Your task to perform on an android device: check storage Image 0: 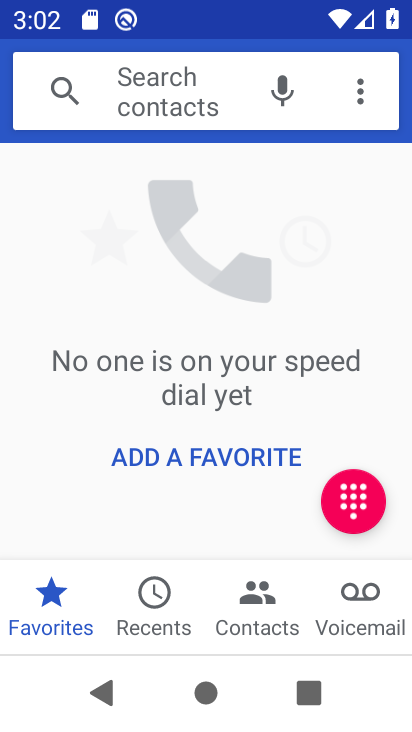
Step 0: press home button
Your task to perform on an android device: check storage Image 1: 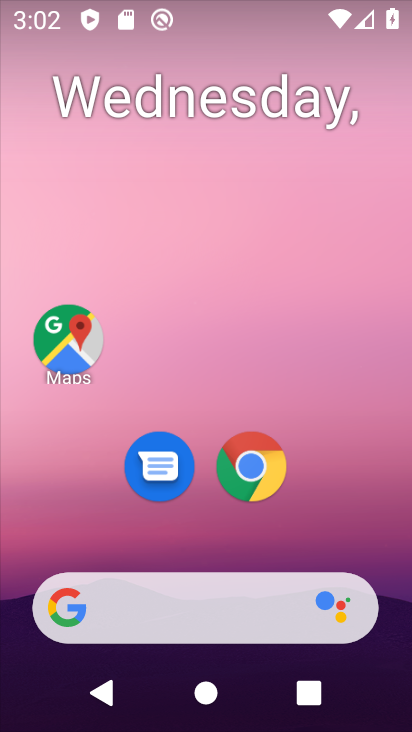
Step 1: drag from (327, 511) to (127, 160)
Your task to perform on an android device: check storage Image 2: 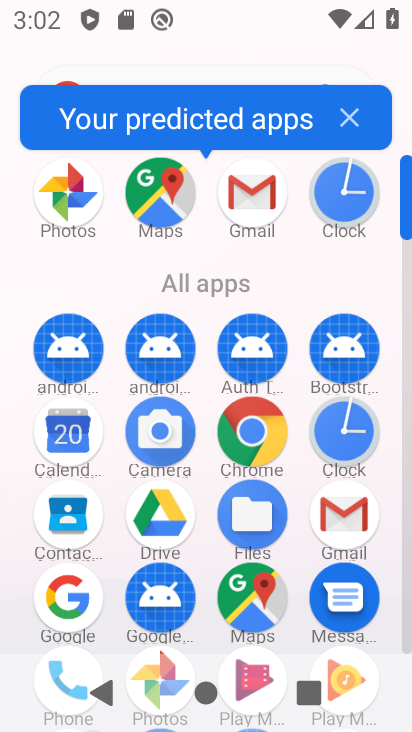
Step 2: drag from (203, 635) to (204, 162)
Your task to perform on an android device: check storage Image 3: 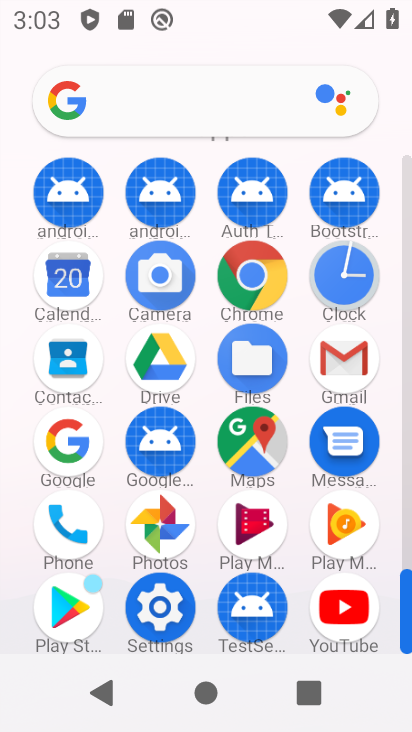
Step 3: click (142, 605)
Your task to perform on an android device: check storage Image 4: 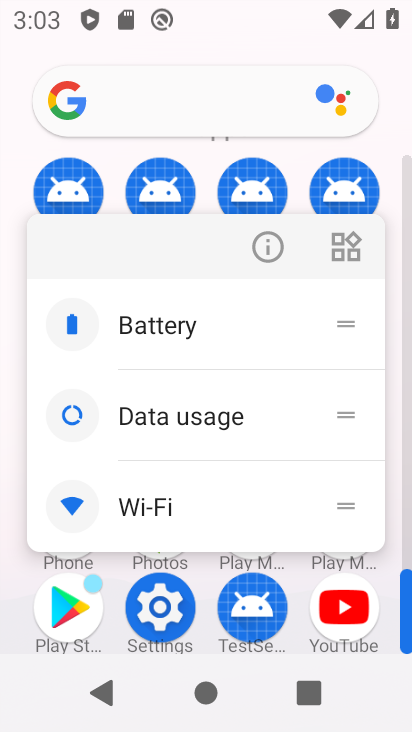
Step 4: click (158, 619)
Your task to perform on an android device: check storage Image 5: 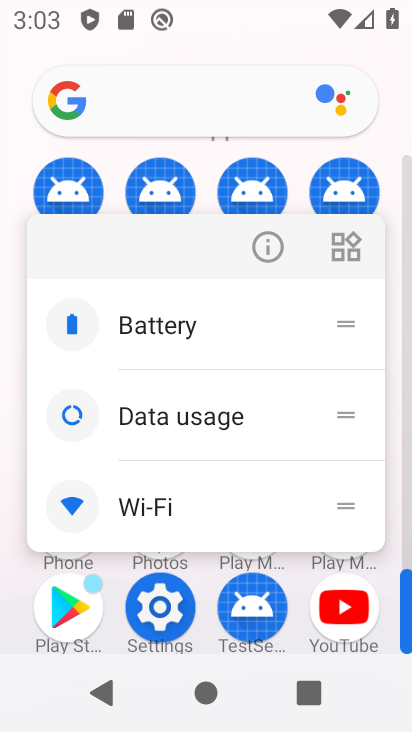
Step 5: click (158, 619)
Your task to perform on an android device: check storage Image 6: 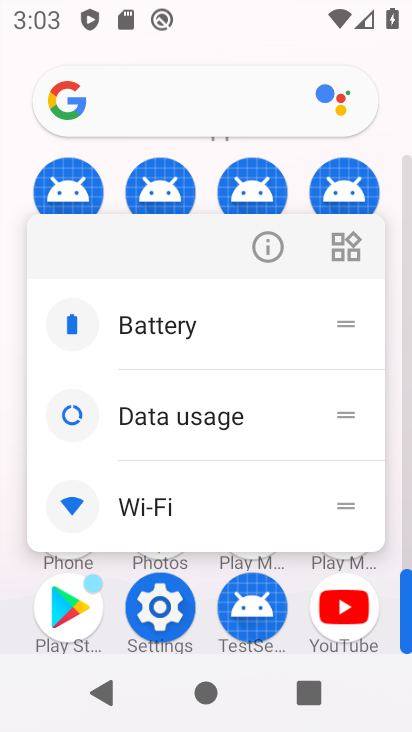
Step 6: click (158, 619)
Your task to perform on an android device: check storage Image 7: 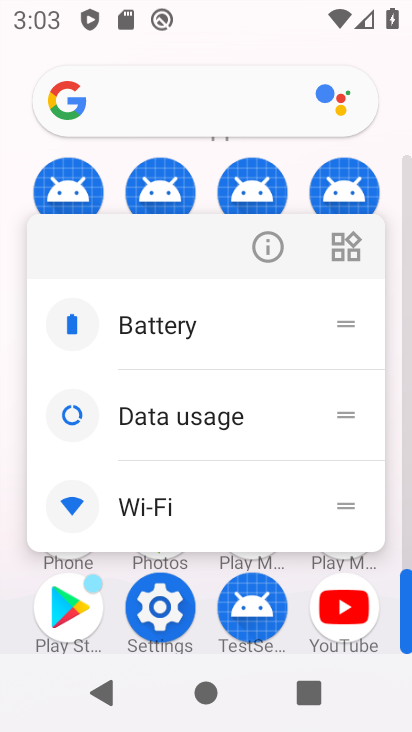
Step 7: click (158, 619)
Your task to perform on an android device: check storage Image 8: 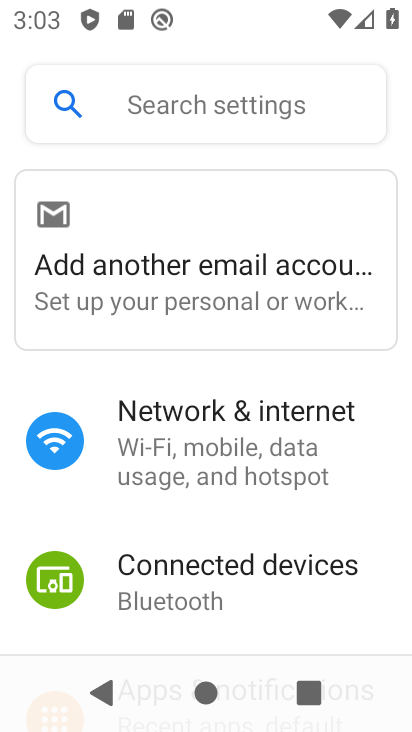
Step 8: drag from (226, 541) to (187, 155)
Your task to perform on an android device: check storage Image 9: 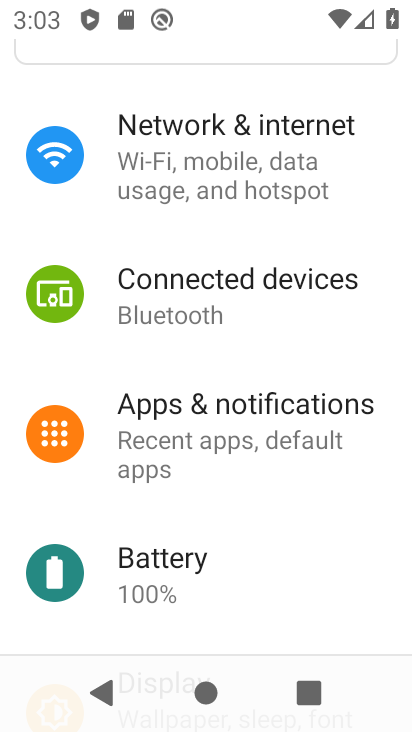
Step 9: drag from (191, 541) to (205, 177)
Your task to perform on an android device: check storage Image 10: 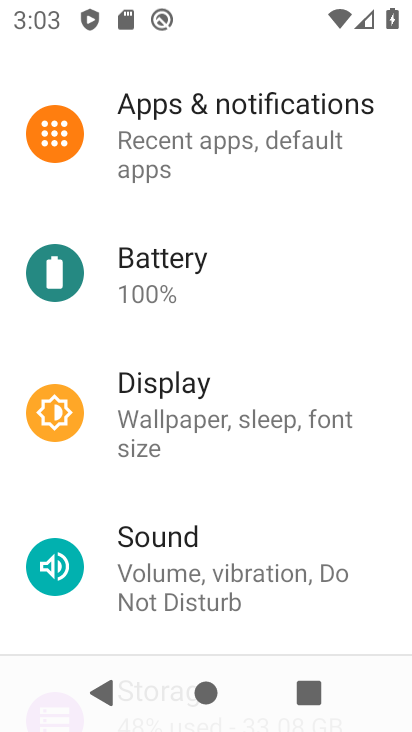
Step 10: drag from (223, 624) to (239, 331)
Your task to perform on an android device: check storage Image 11: 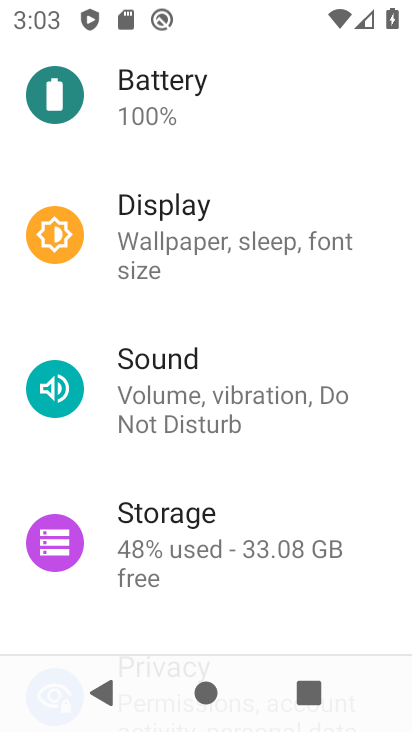
Step 11: click (202, 544)
Your task to perform on an android device: check storage Image 12: 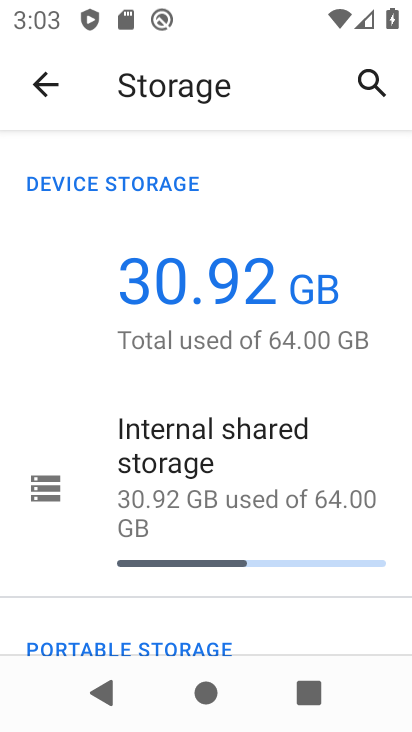
Step 12: task complete